Your task to perform on an android device: Open Chrome and go to settings Image 0: 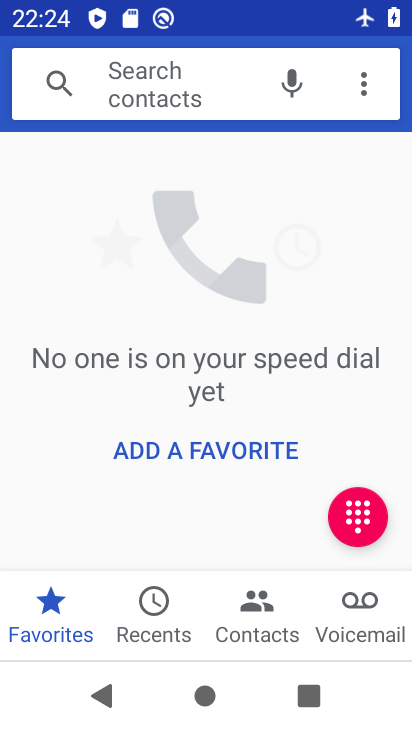
Step 0: press home button
Your task to perform on an android device: Open Chrome and go to settings Image 1: 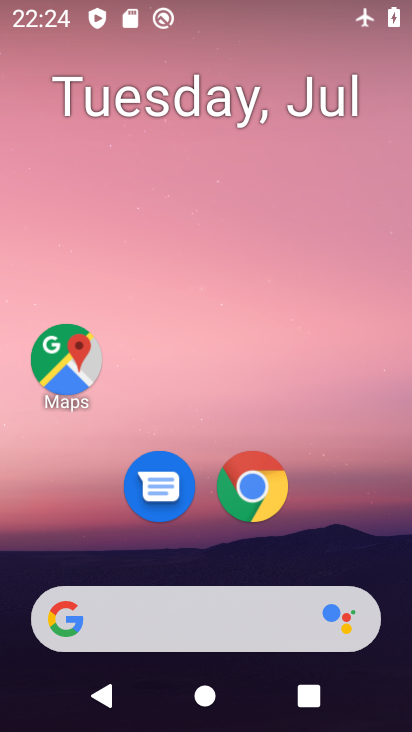
Step 1: drag from (368, 517) to (358, 173)
Your task to perform on an android device: Open Chrome and go to settings Image 2: 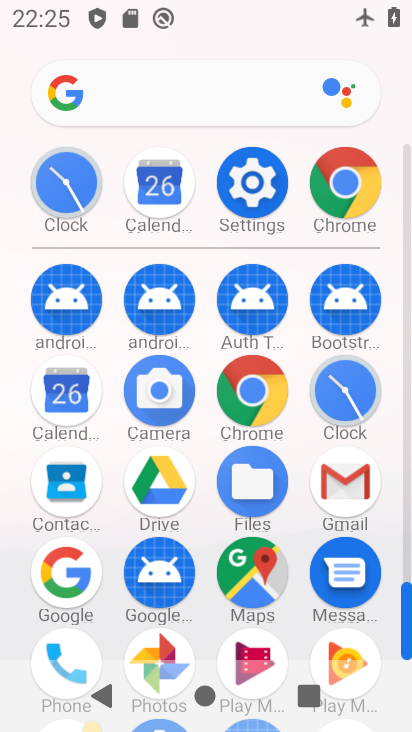
Step 2: click (247, 388)
Your task to perform on an android device: Open Chrome and go to settings Image 3: 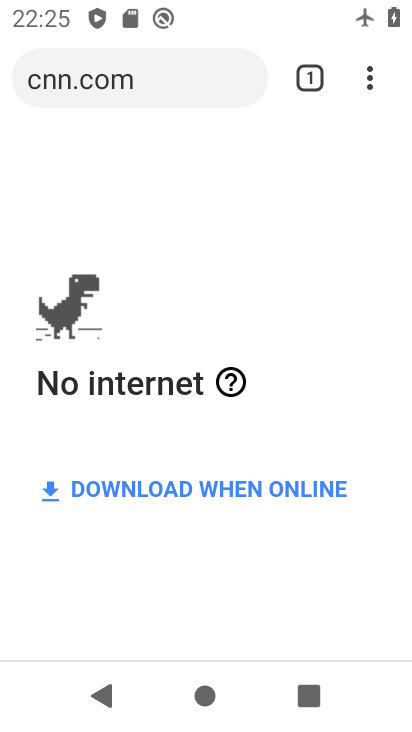
Step 3: click (369, 85)
Your task to perform on an android device: Open Chrome and go to settings Image 4: 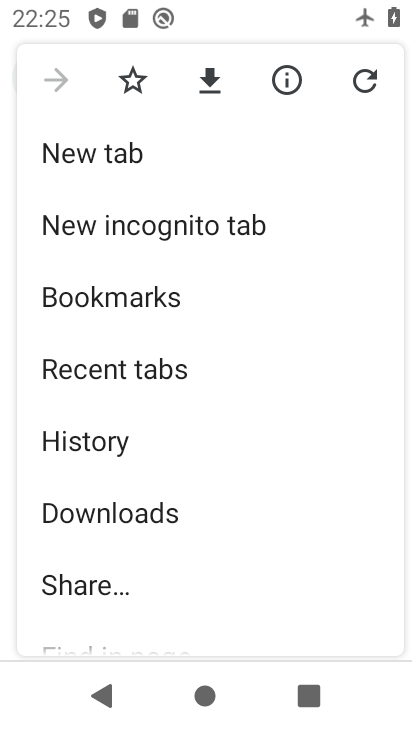
Step 4: drag from (342, 431) to (341, 392)
Your task to perform on an android device: Open Chrome and go to settings Image 5: 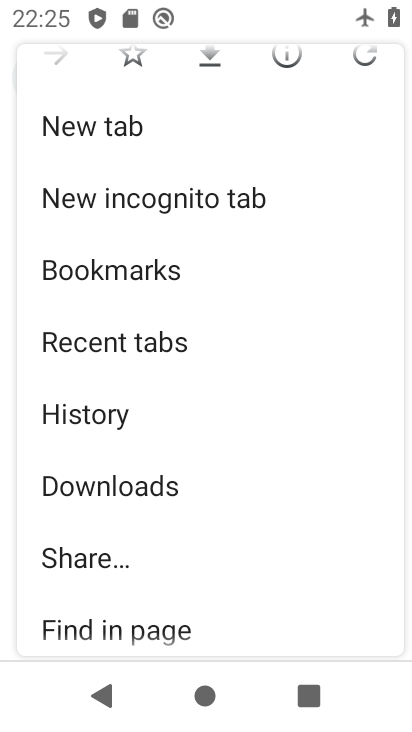
Step 5: drag from (313, 512) to (318, 448)
Your task to perform on an android device: Open Chrome and go to settings Image 6: 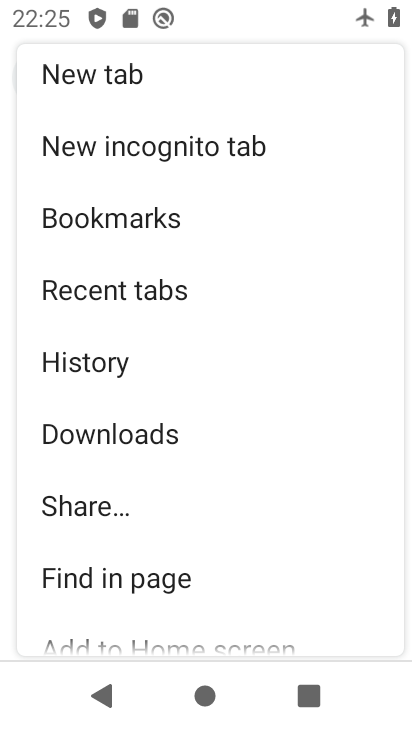
Step 6: drag from (315, 526) to (312, 454)
Your task to perform on an android device: Open Chrome and go to settings Image 7: 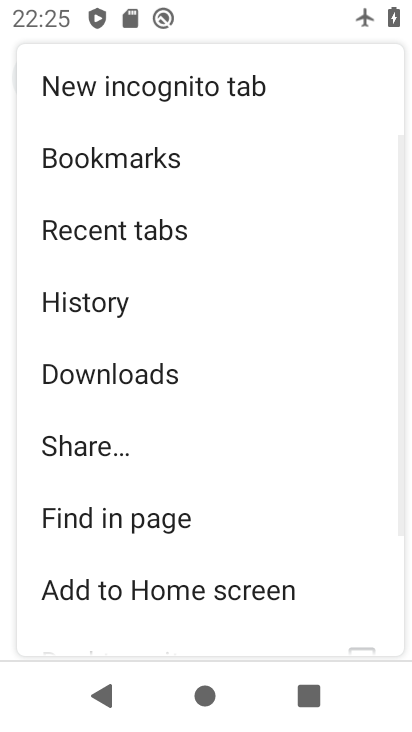
Step 7: drag from (312, 530) to (311, 465)
Your task to perform on an android device: Open Chrome and go to settings Image 8: 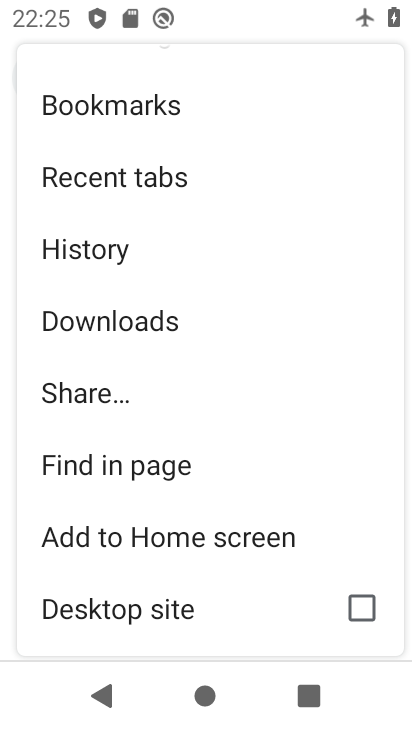
Step 8: drag from (303, 570) to (303, 507)
Your task to perform on an android device: Open Chrome and go to settings Image 9: 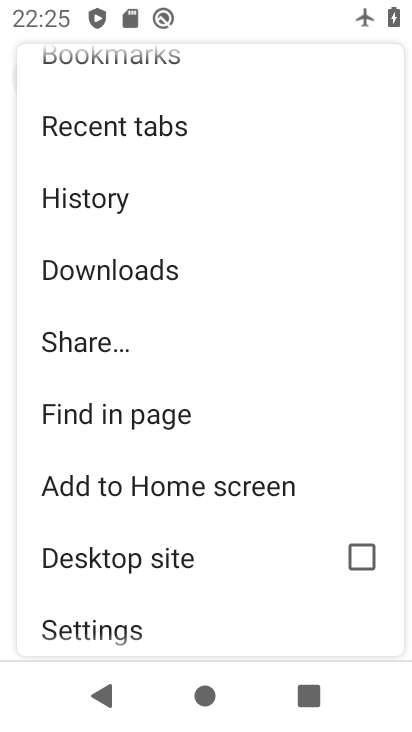
Step 9: drag from (297, 572) to (299, 504)
Your task to perform on an android device: Open Chrome and go to settings Image 10: 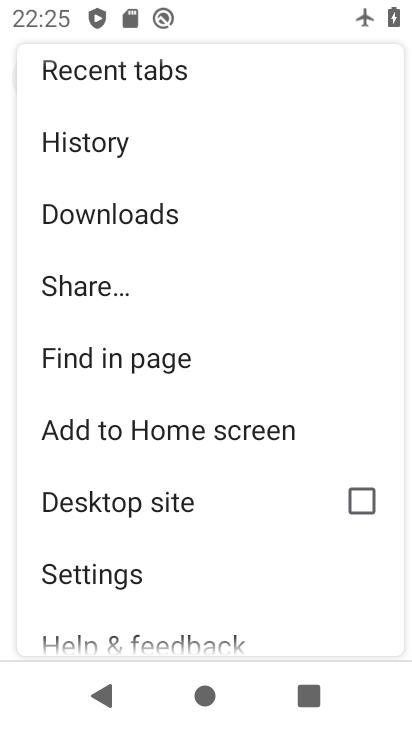
Step 10: drag from (286, 582) to (288, 478)
Your task to perform on an android device: Open Chrome and go to settings Image 11: 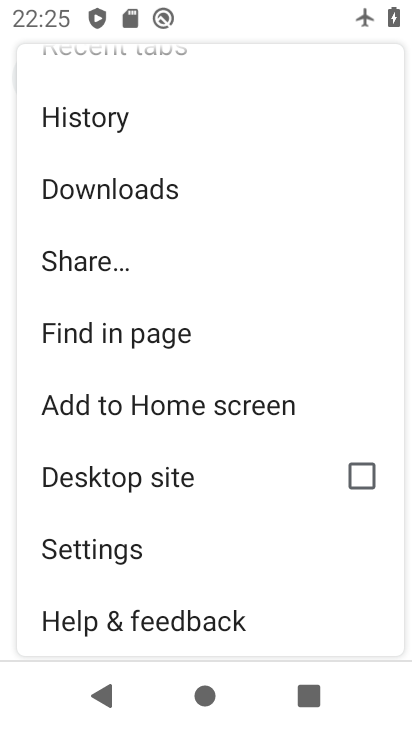
Step 11: click (212, 557)
Your task to perform on an android device: Open Chrome and go to settings Image 12: 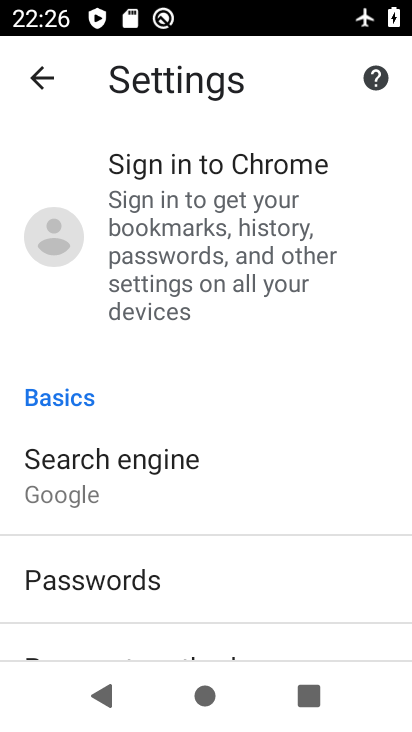
Step 12: task complete